Your task to perform on an android device: What's the weather going to be this weekend? Image 0: 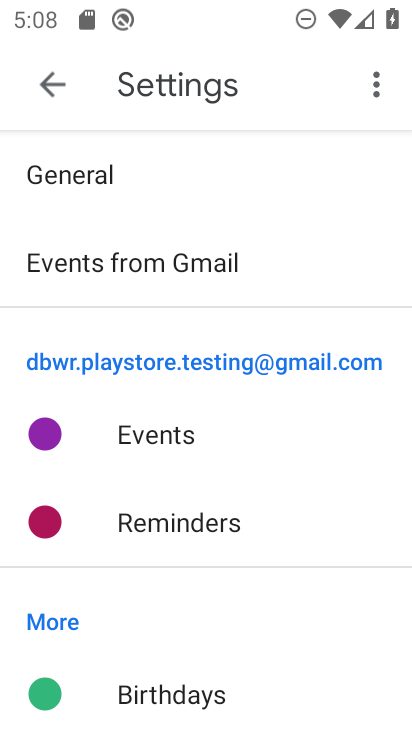
Step 0: press back button
Your task to perform on an android device: What's the weather going to be this weekend? Image 1: 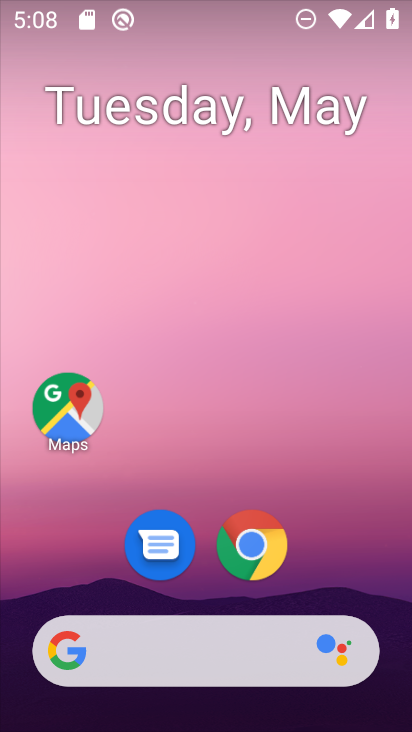
Step 1: drag from (343, 564) to (215, 32)
Your task to perform on an android device: What's the weather going to be this weekend? Image 2: 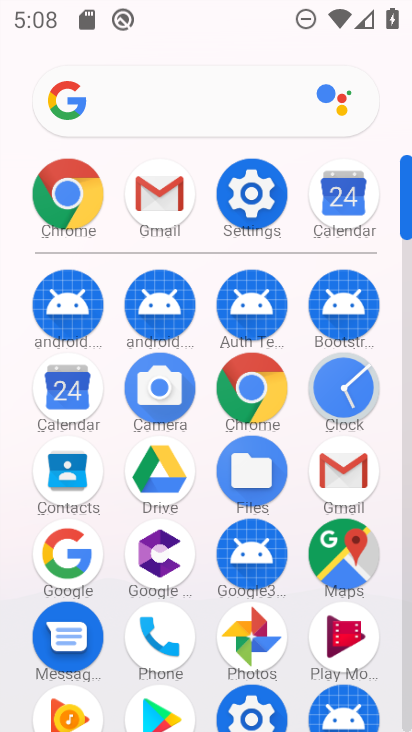
Step 2: drag from (11, 592) to (10, 228)
Your task to perform on an android device: What's the weather going to be this weekend? Image 3: 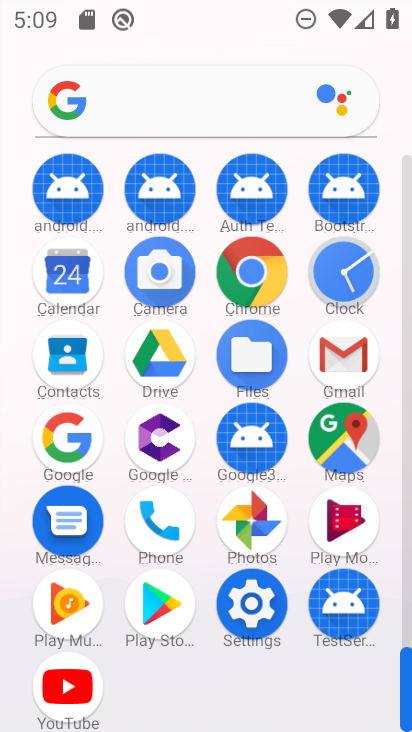
Step 3: click (249, 264)
Your task to perform on an android device: What's the weather going to be this weekend? Image 4: 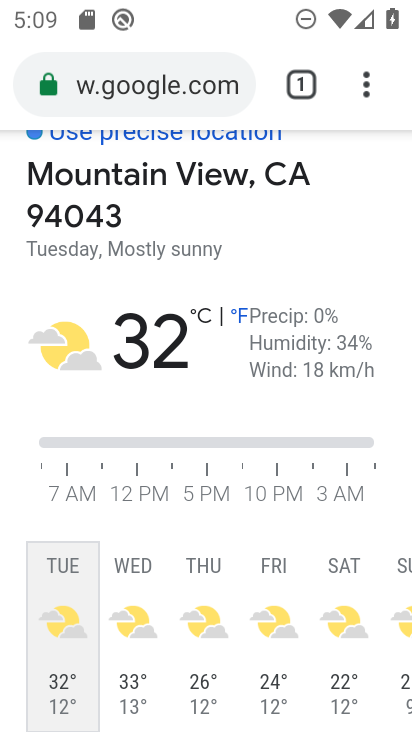
Step 4: click (158, 69)
Your task to perform on an android device: What's the weather going to be this weekend? Image 5: 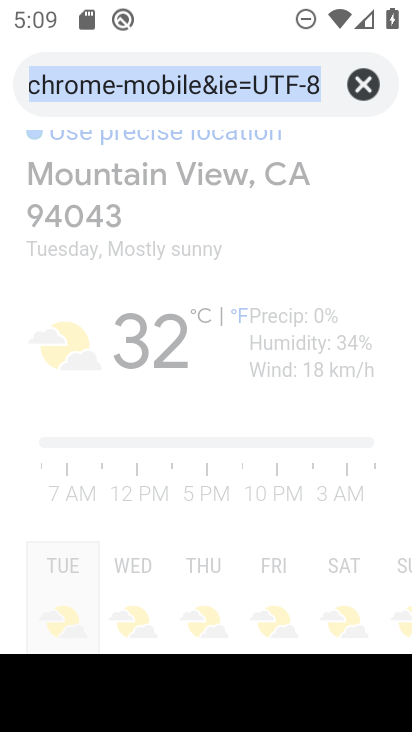
Step 5: click (363, 83)
Your task to perform on an android device: What's the weather going to be this weekend? Image 6: 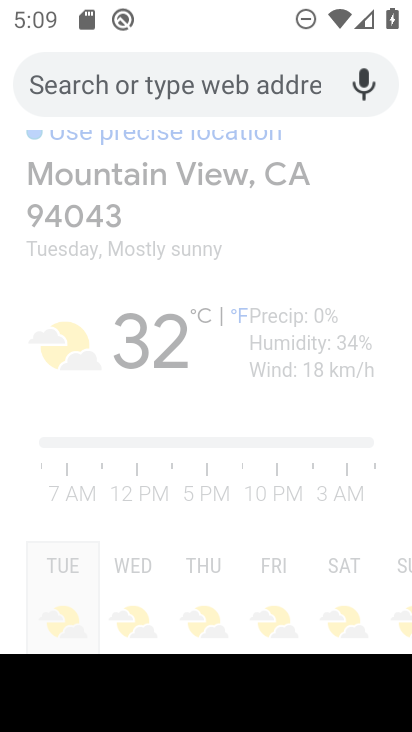
Step 6: type "What's the weather going to be this weekend?"
Your task to perform on an android device: What's the weather going to be this weekend? Image 7: 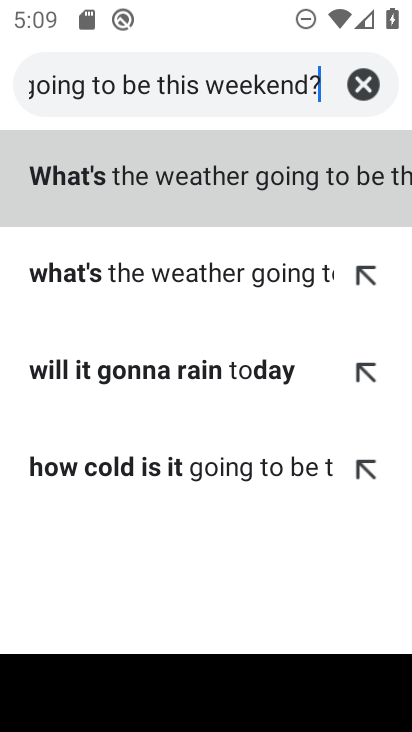
Step 7: click (236, 189)
Your task to perform on an android device: What's the weather going to be this weekend? Image 8: 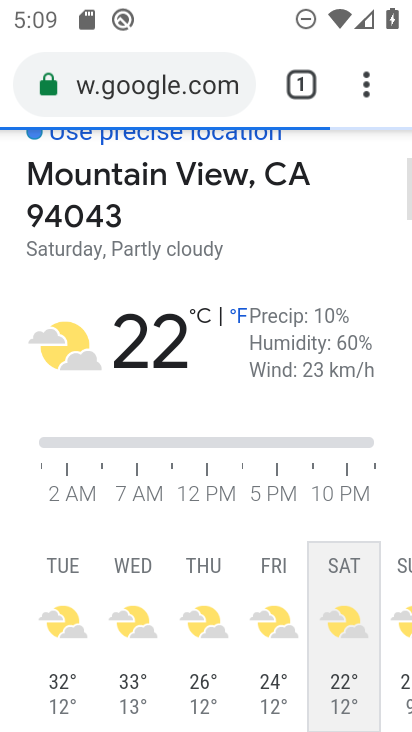
Step 8: task complete